Your task to perform on an android device: Search for sushi restaurants on Maps Image 0: 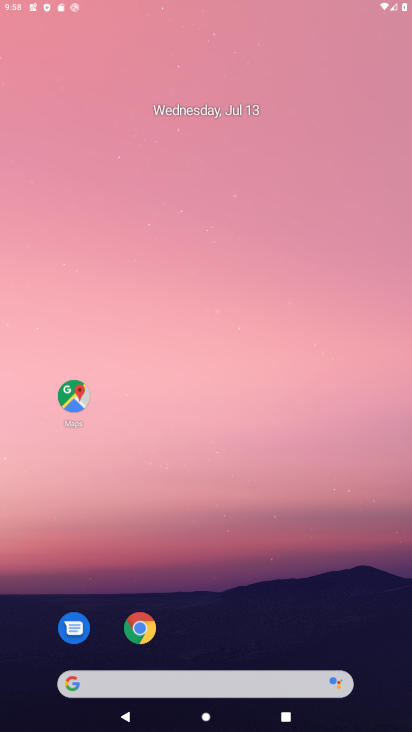
Step 0: press home button
Your task to perform on an android device: Search for sushi restaurants on Maps Image 1: 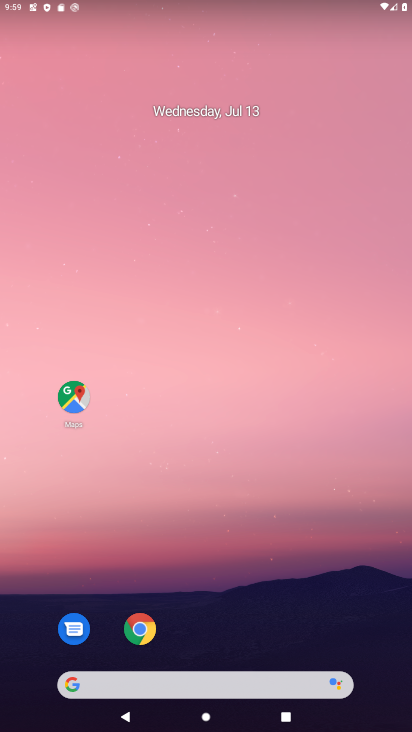
Step 1: click (79, 394)
Your task to perform on an android device: Search for sushi restaurants on Maps Image 2: 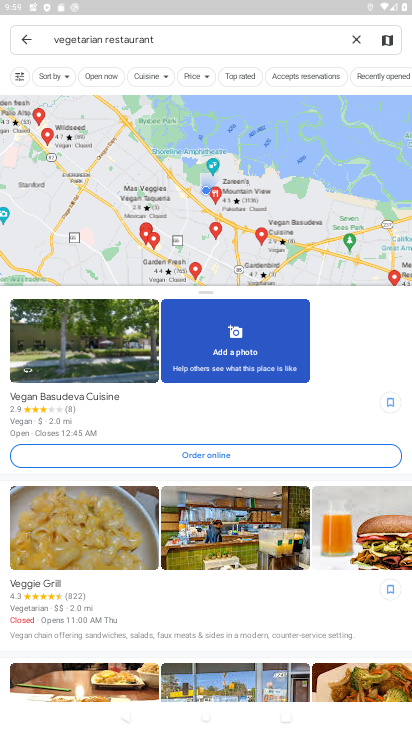
Step 2: click (354, 36)
Your task to perform on an android device: Search for sushi restaurants on Maps Image 3: 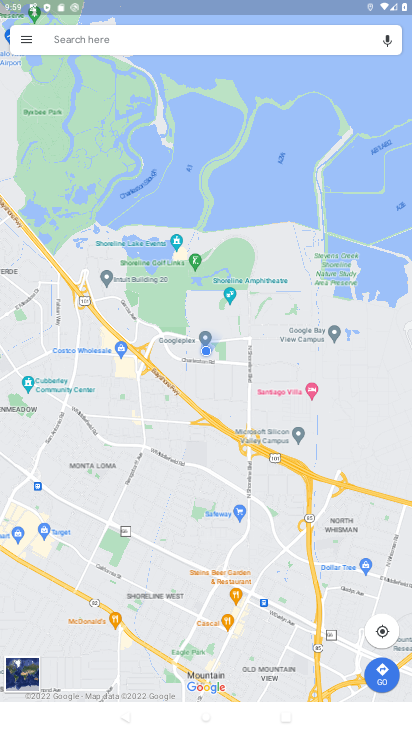
Step 3: click (109, 32)
Your task to perform on an android device: Search for sushi restaurants on Maps Image 4: 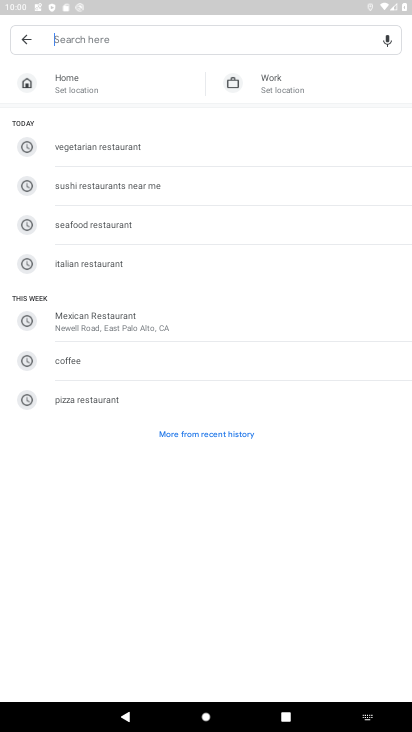
Step 4: click (133, 185)
Your task to perform on an android device: Search for sushi restaurants on Maps Image 5: 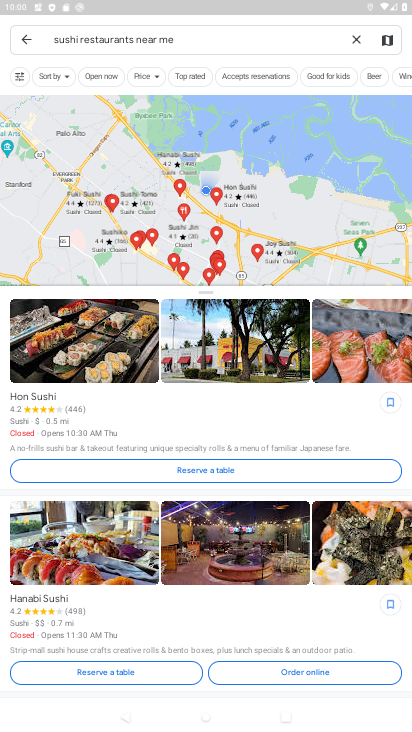
Step 5: task complete